Your task to perform on an android device: turn on showing notifications on the lock screen Image 0: 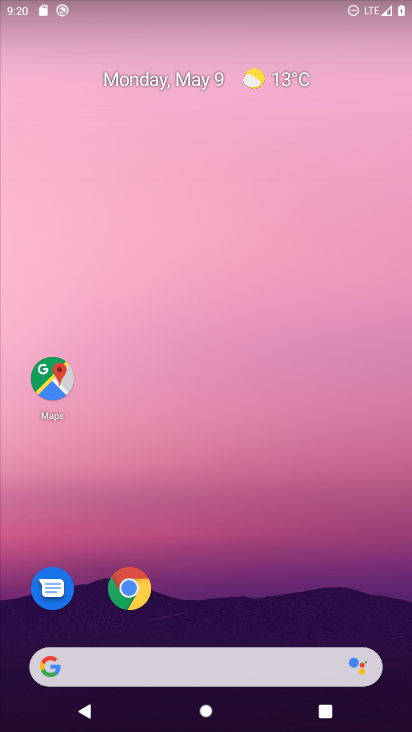
Step 0: drag from (305, 600) to (302, 231)
Your task to perform on an android device: turn on showing notifications on the lock screen Image 1: 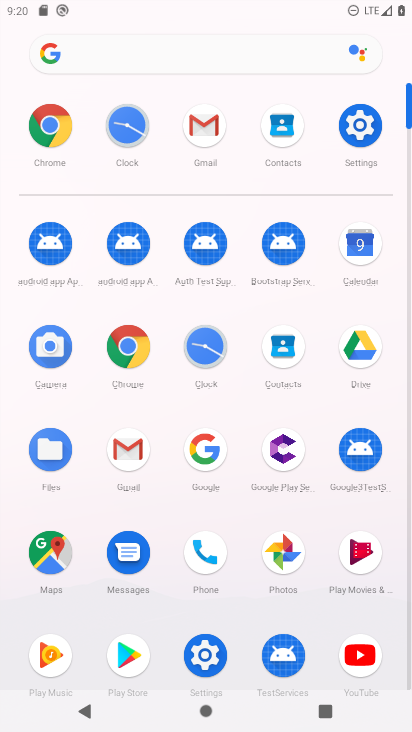
Step 1: click (374, 130)
Your task to perform on an android device: turn on showing notifications on the lock screen Image 2: 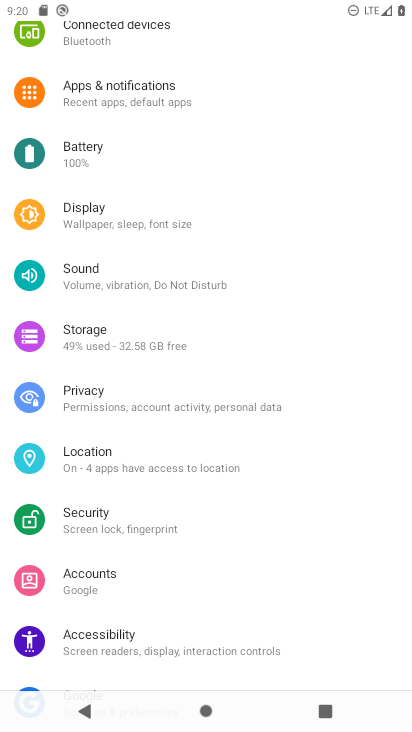
Step 2: click (134, 106)
Your task to perform on an android device: turn on showing notifications on the lock screen Image 3: 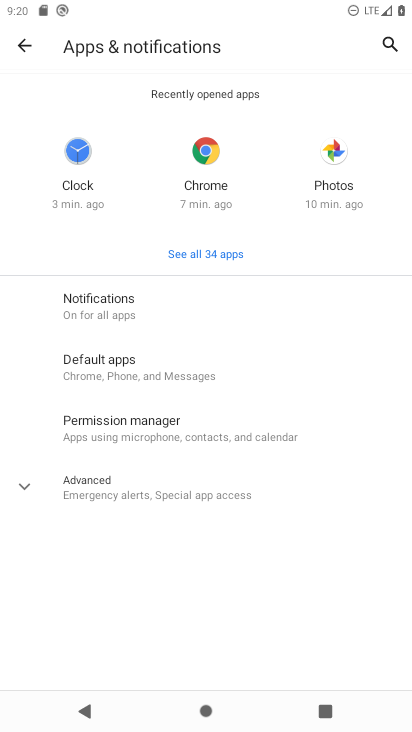
Step 3: click (120, 482)
Your task to perform on an android device: turn on showing notifications on the lock screen Image 4: 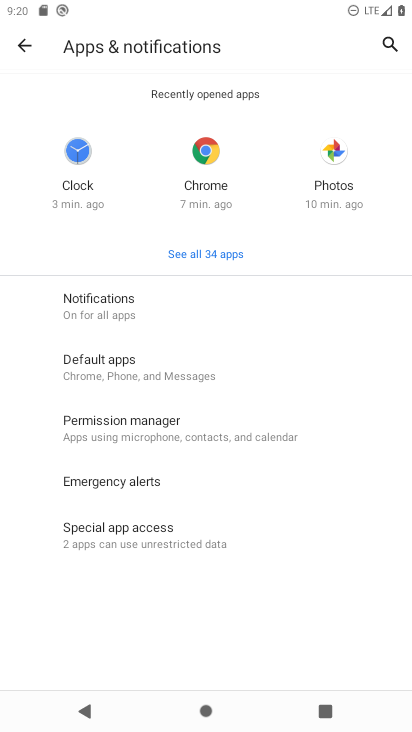
Step 4: click (138, 317)
Your task to perform on an android device: turn on showing notifications on the lock screen Image 5: 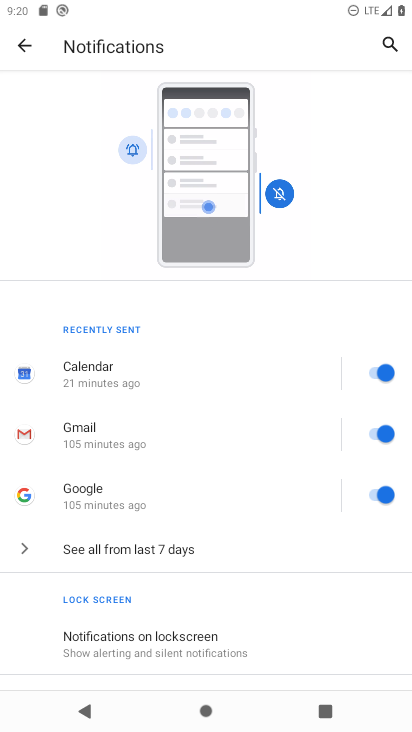
Step 5: click (213, 625)
Your task to perform on an android device: turn on showing notifications on the lock screen Image 6: 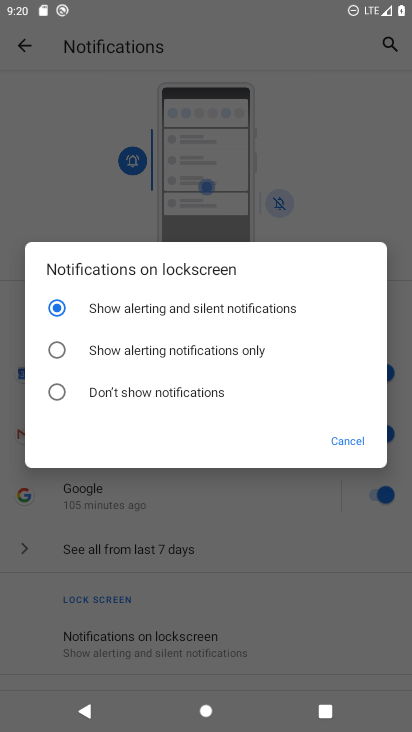
Step 6: click (267, 346)
Your task to perform on an android device: turn on showing notifications on the lock screen Image 7: 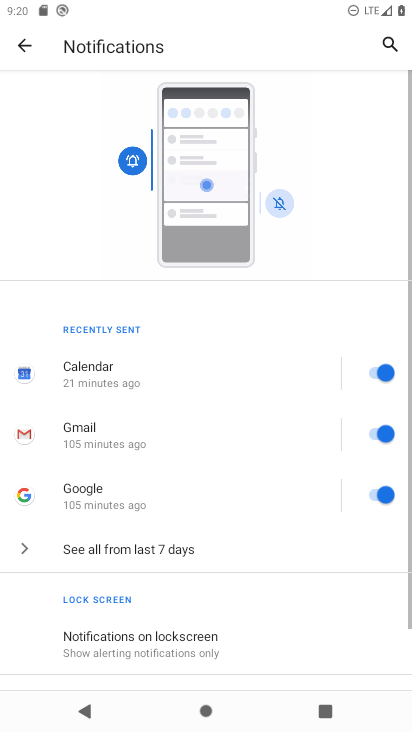
Step 7: task complete